Your task to perform on an android device: change text size in settings app Image 0: 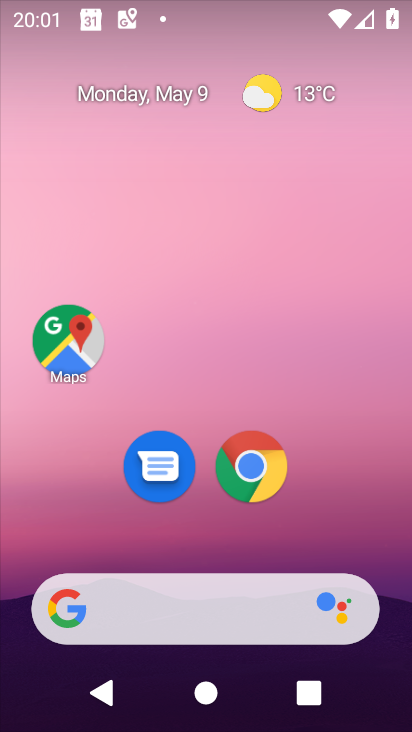
Step 0: drag from (335, 517) to (310, 239)
Your task to perform on an android device: change text size in settings app Image 1: 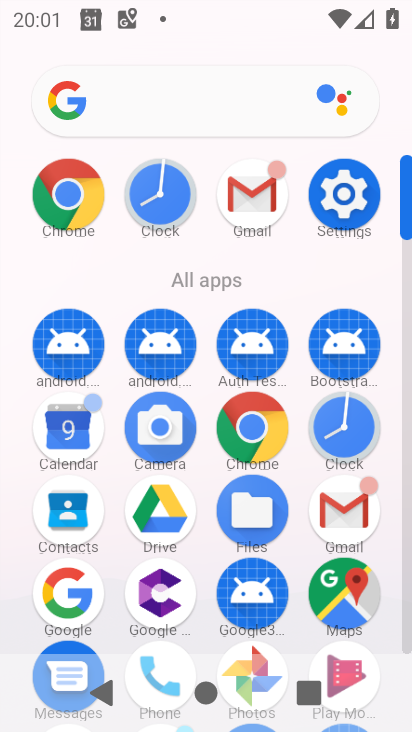
Step 1: click (333, 190)
Your task to perform on an android device: change text size in settings app Image 2: 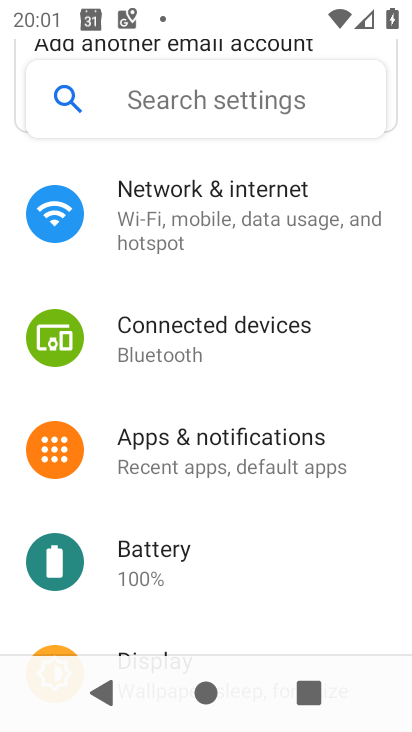
Step 2: drag from (225, 586) to (303, 177)
Your task to perform on an android device: change text size in settings app Image 3: 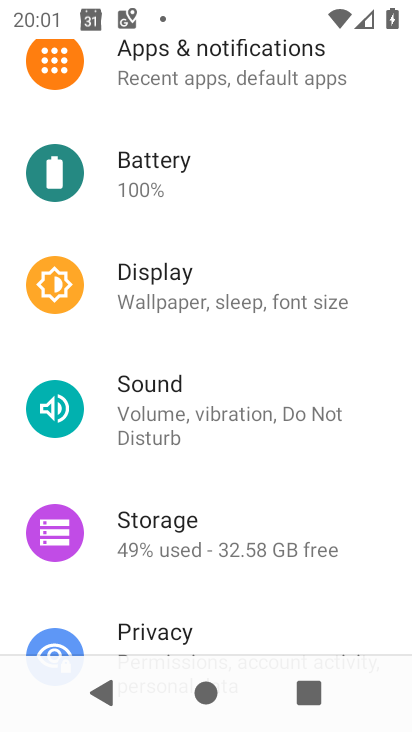
Step 3: drag from (262, 618) to (351, 188)
Your task to perform on an android device: change text size in settings app Image 4: 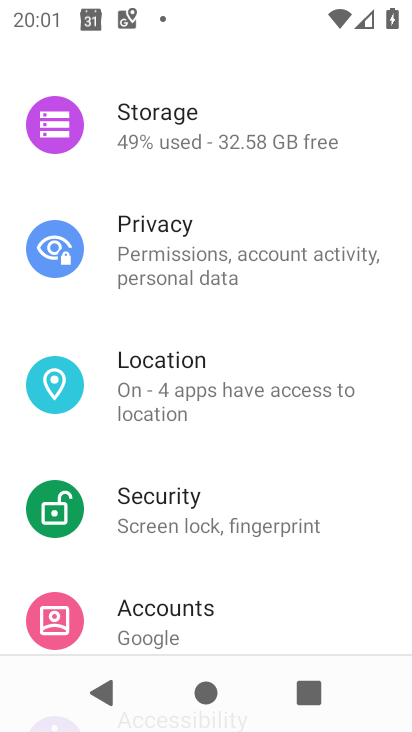
Step 4: drag from (296, 612) to (311, 230)
Your task to perform on an android device: change text size in settings app Image 5: 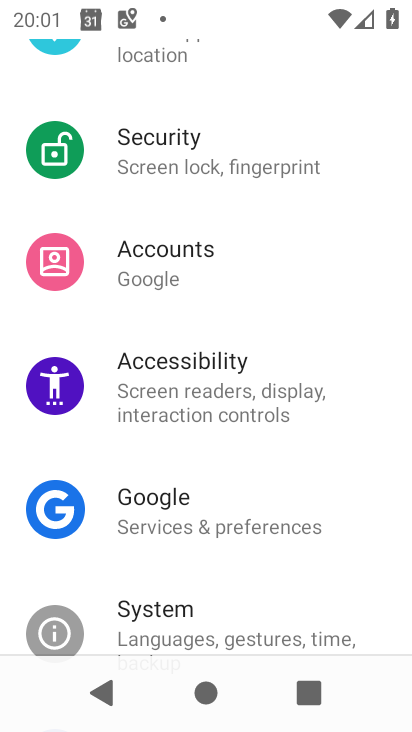
Step 5: click (216, 404)
Your task to perform on an android device: change text size in settings app Image 6: 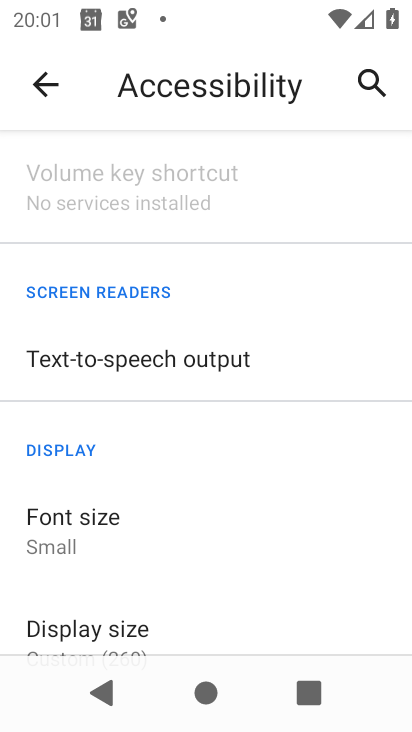
Step 6: click (134, 534)
Your task to perform on an android device: change text size in settings app Image 7: 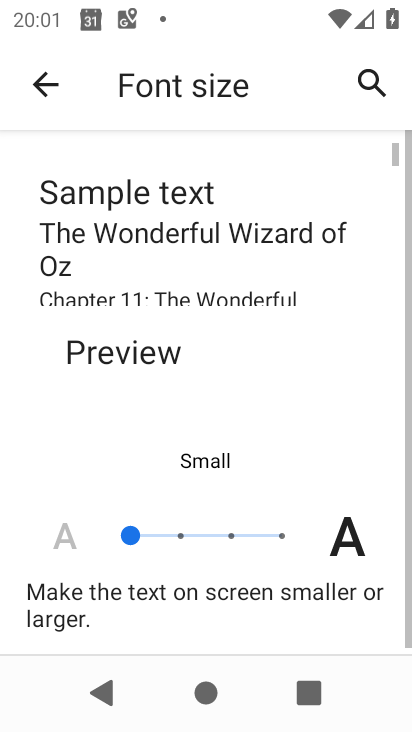
Step 7: click (185, 529)
Your task to perform on an android device: change text size in settings app Image 8: 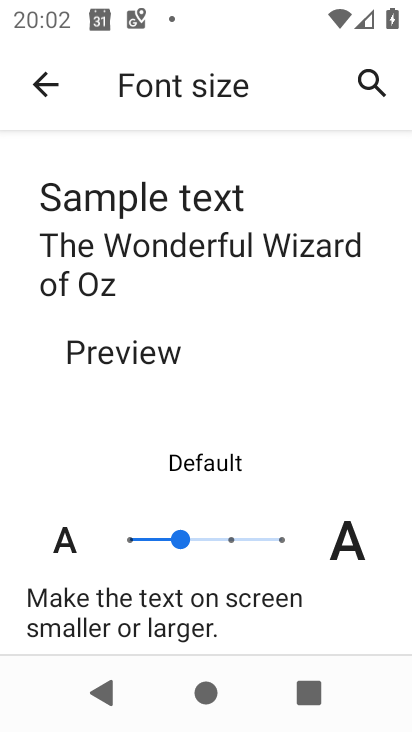
Step 8: click (227, 539)
Your task to perform on an android device: change text size in settings app Image 9: 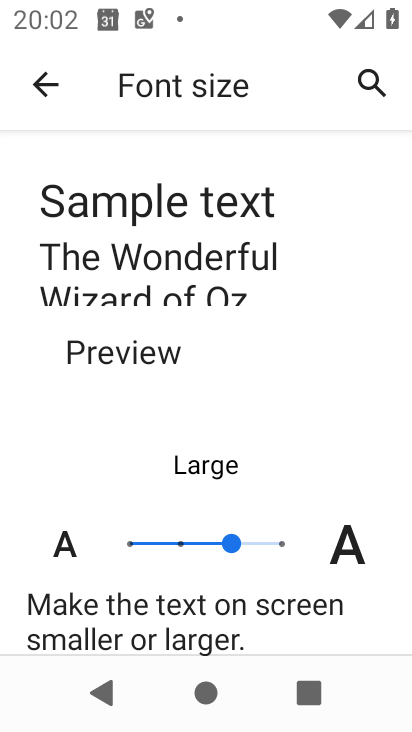
Step 9: task complete